Your task to perform on an android device: see creations saved in the google photos Image 0: 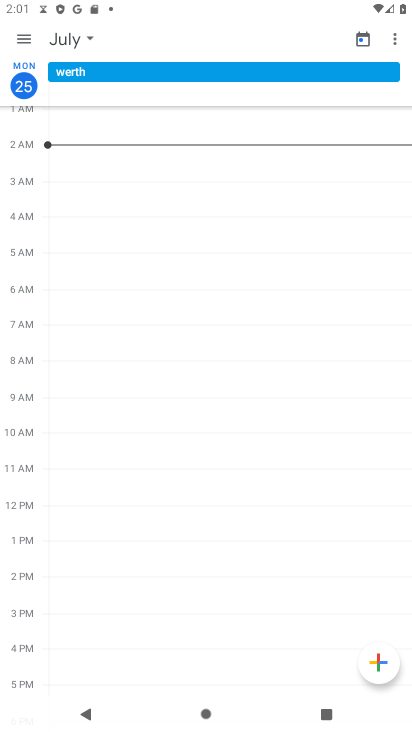
Step 0: press home button
Your task to perform on an android device: see creations saved in the google photos Image 1: 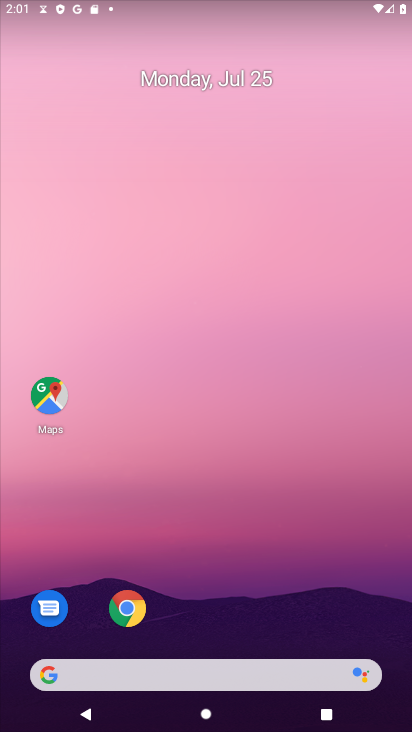
Step 1: drag from (179, 670) to (247, 11)
Your task to perform on an android device: see creations saved in the google photos Image 2: 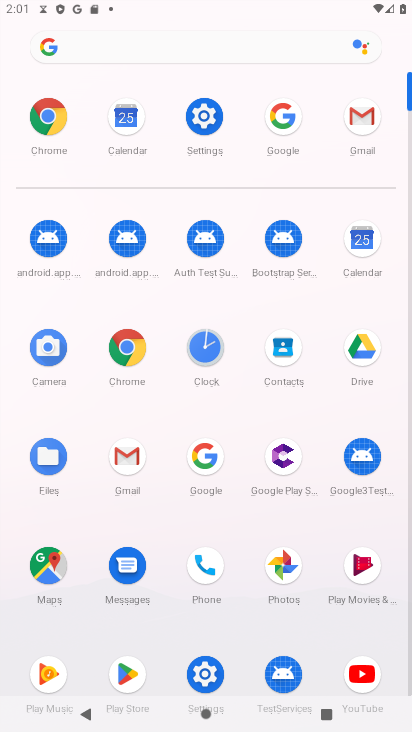
Step 2: click (284, 565)
Your task to perform on an android device: see creations saved in the google photos Image 3: 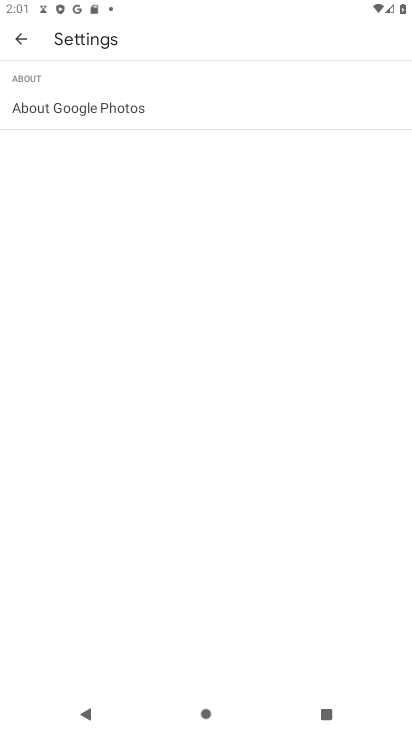
Step 3: press back button
Your task to perform on an android device: see creations saved in the google photos Image 4: 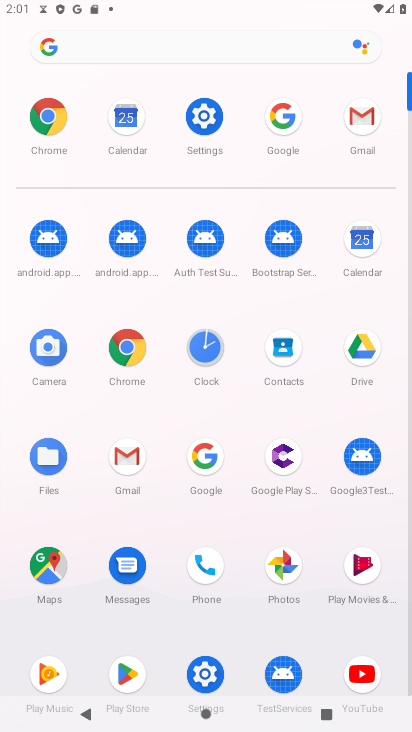
Step 4: click (284, 566)
Your task to perform on an android device: see creations saved in the google photos Image 5: 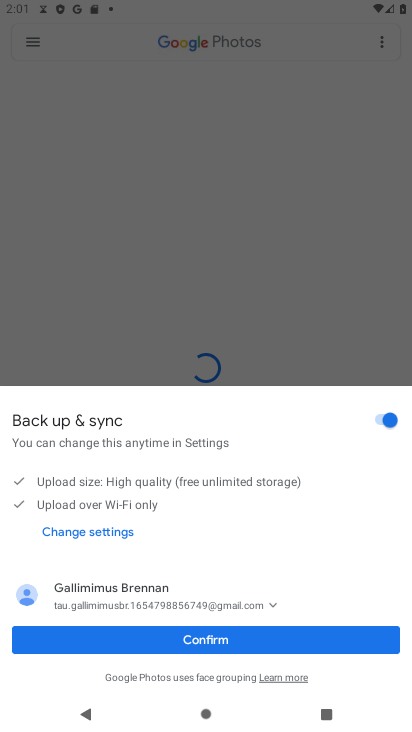
Step 5: click (225, 636)
Your task to perform on an android device: see creations saved in the google photos Image 6: 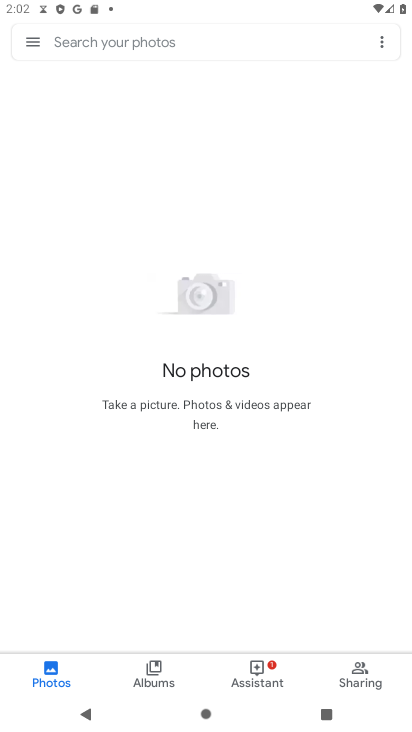
Step 6: click (28, 42)
Your task to perform on an android device: see creations saved in the google photos Image 7: 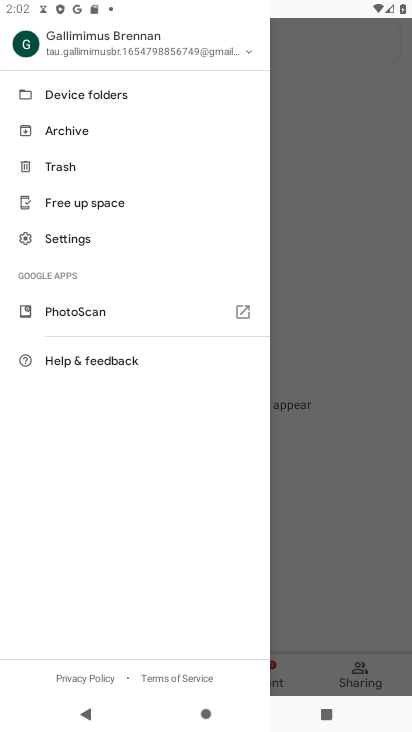
Step 7: click (85, 245)
Your task to perform on an android device: see creations saved in the google photos Image 8: 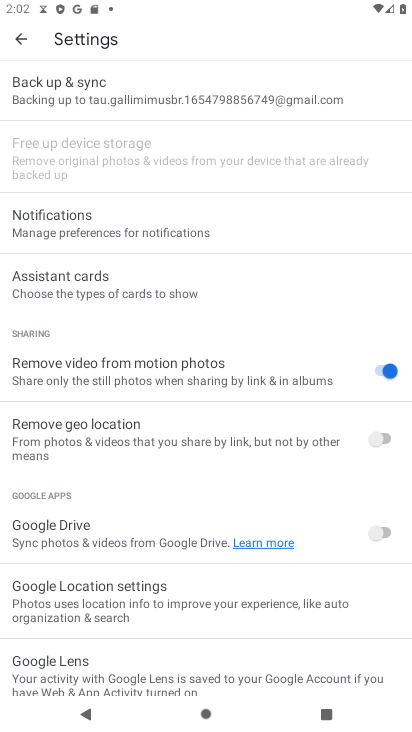
Step 8: drag from (111, 191) to (149, 329)
Your task to perform on an android device: see creations saved in the google photos Image 9: 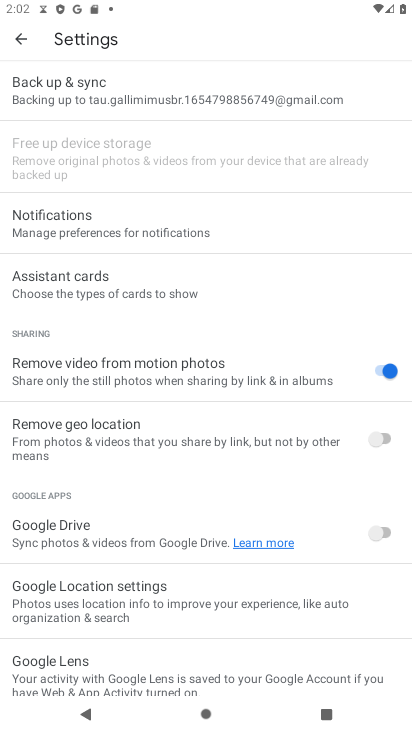
Step 9: press back button
Your task to perform on an android device: see creations saved in the google photos Image 10: 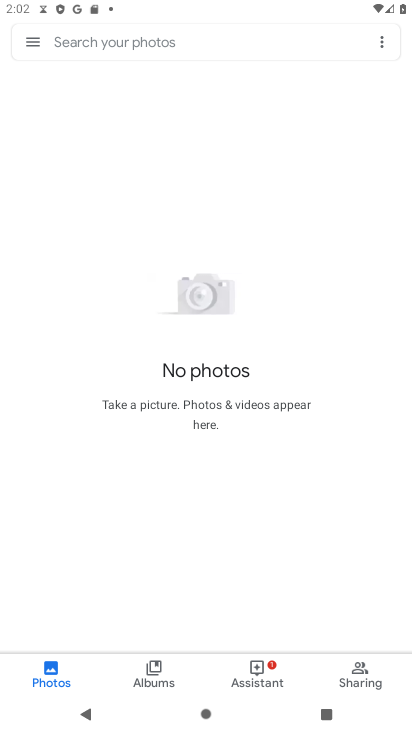
Step 10: click (150, 662)
Your task to perform on an android device: see creations saved in the google photos Image 11: 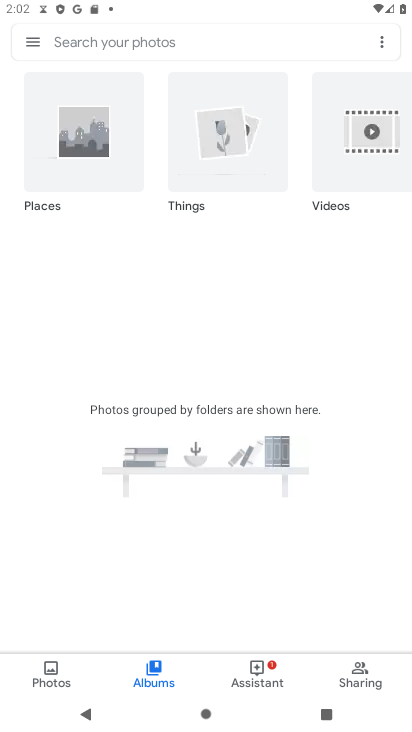
Step 11: click (360, 673)
Your task to perform on an android device: see creations saved in the google photos Image 12: 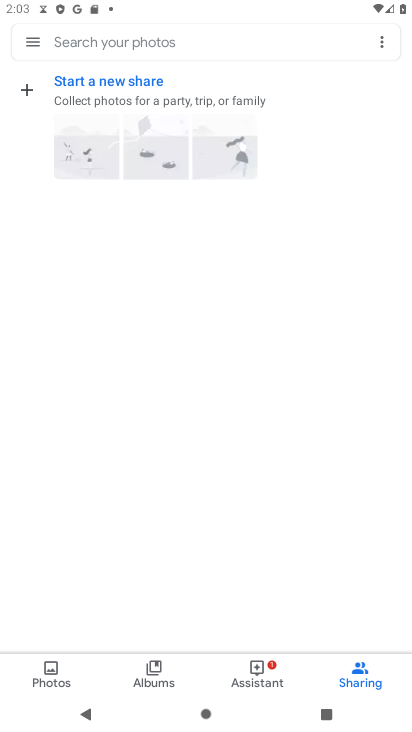
Step 12: click (55, 669)
Your task to perform on an android device: see creations saved in the google photos Image 13: 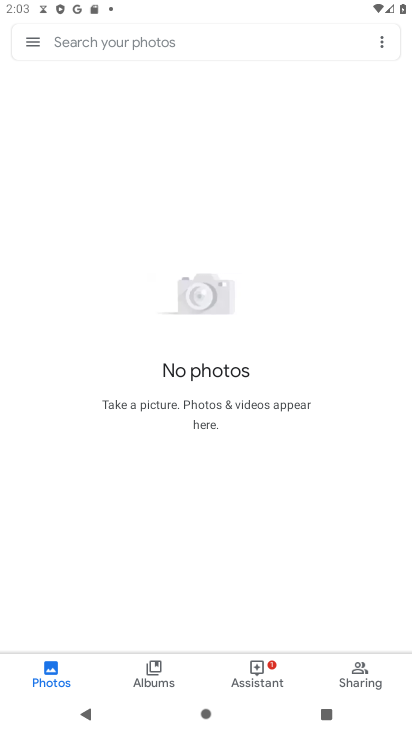
Step 13: click (361, 675)
Your task to perform on an android device: see creations saved in the google photos Image 14: 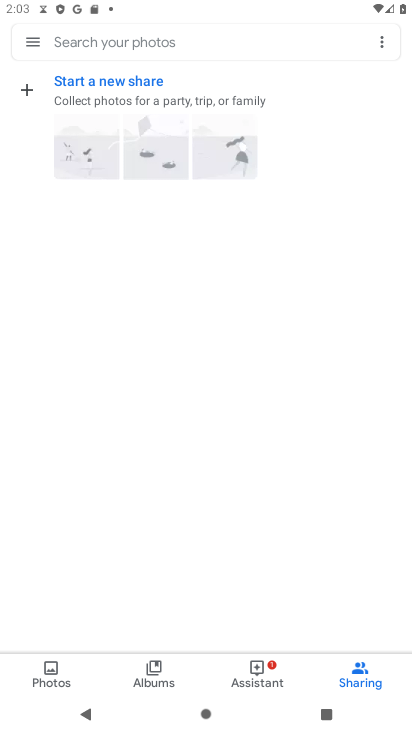
Step 14: task complete